Your task to perform on an android device: Open the web browser Image 0: 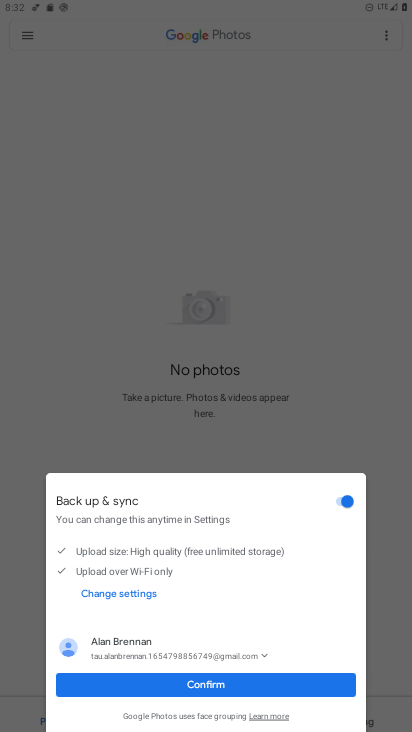
Step 0: press home button
Your task to perform on an android device: Open the web browser Image 1: 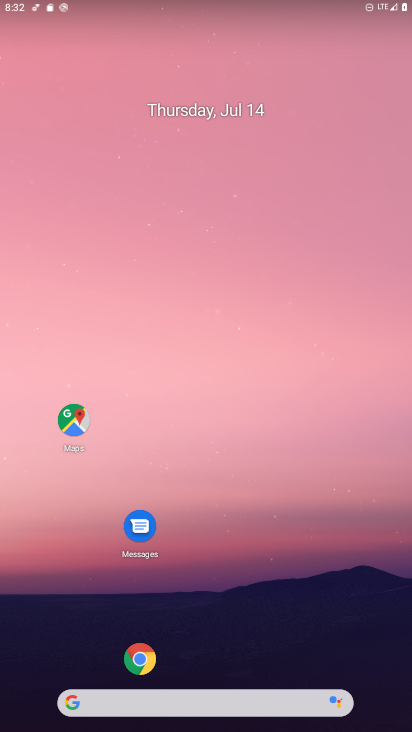
Step 1: click (145, 665)
Your task to perform on an android device: Open the web browser Image 2: 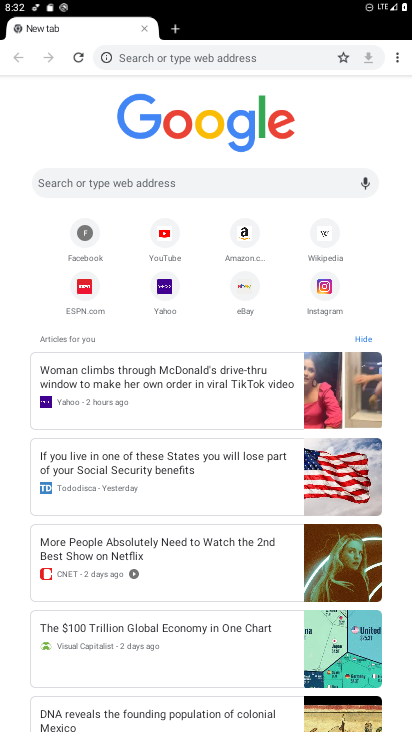
Step 2: task complete